Your task to perform on an android device: Open Amazon Image 0: 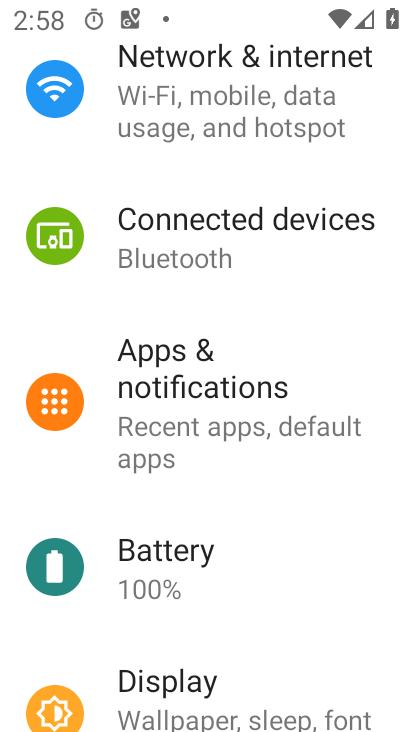
Step 0: press home button
Your task to perform on an android device: Open Amazon Image 1: 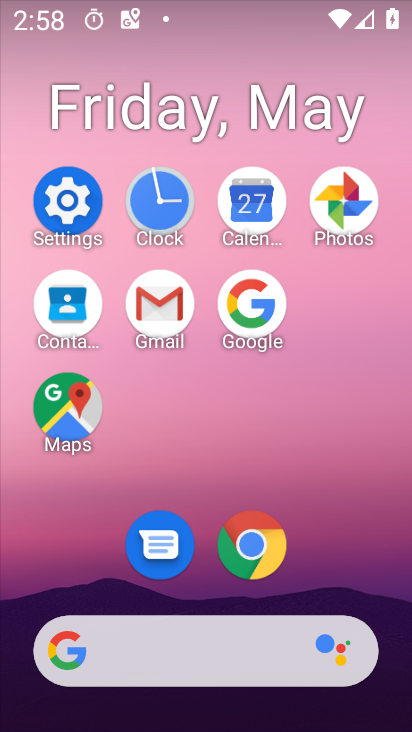
Step 1: click (253, 562)
Your task to perform on an android device: Open Amazon Image 2: 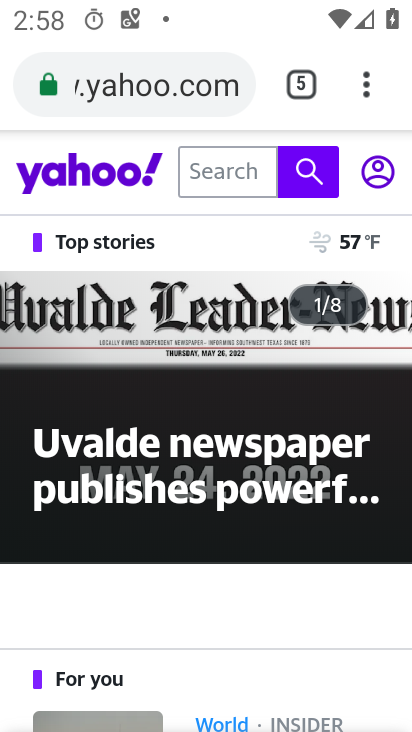
Step 2: click (303, 85)
Your task to perform on an android device: Open Amazon Image 3: 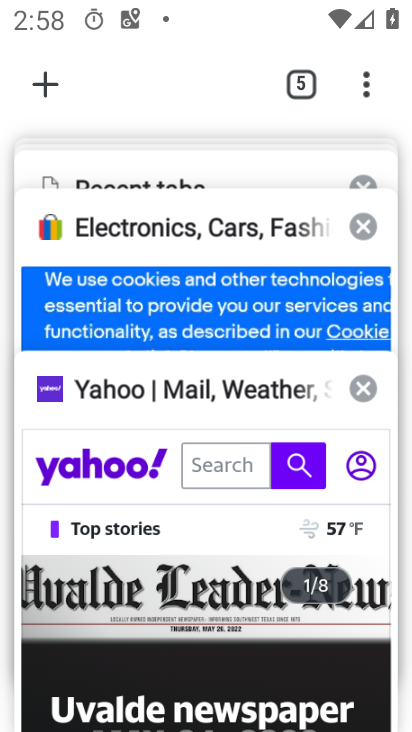
Step 3: click (53, 73)
Your task to perform on an android device: Open Amazon Image 4: 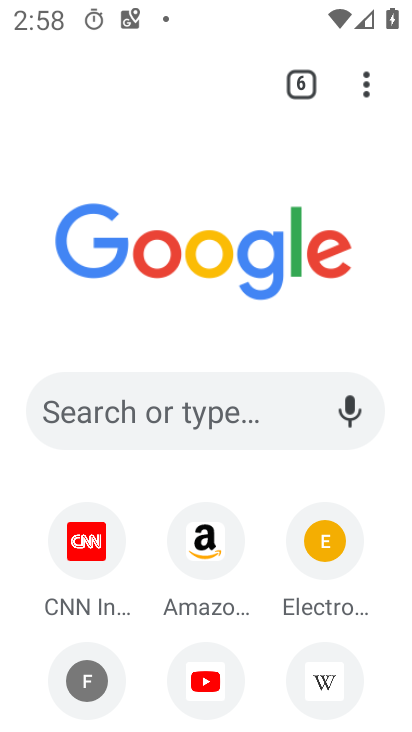
Step 4: click (217, 400)
Your task to perform on an android device: Open Amazon Image 5: 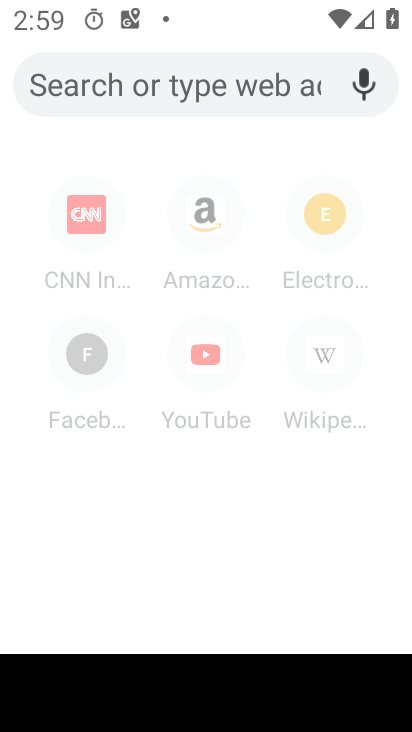
Step 5: type "amazon"
Your task to perform on an android device: Open Amazon Image 6: 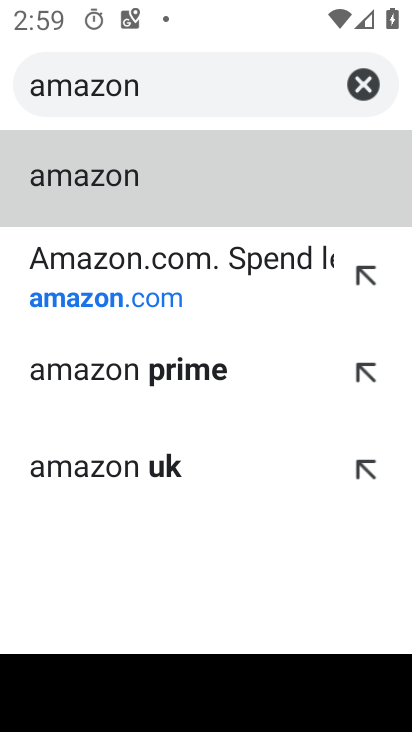
Step 6: click (113, 290)
Your task to perform on an android device: Open Amazon Image 7: 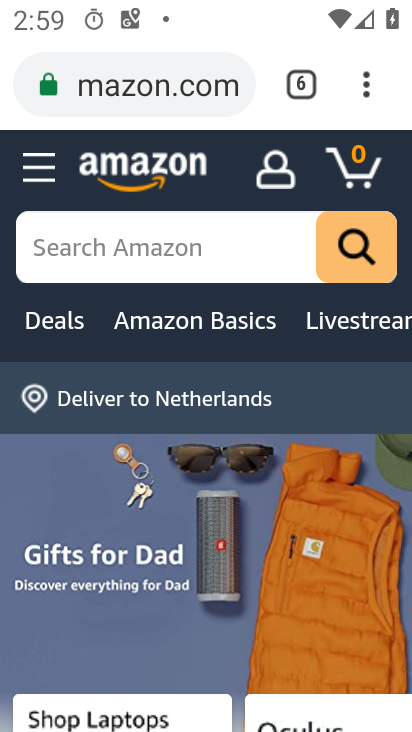
Step 7: task complete